Your task to perform on an android device: find snoozed emails in the gmail app Image 0: 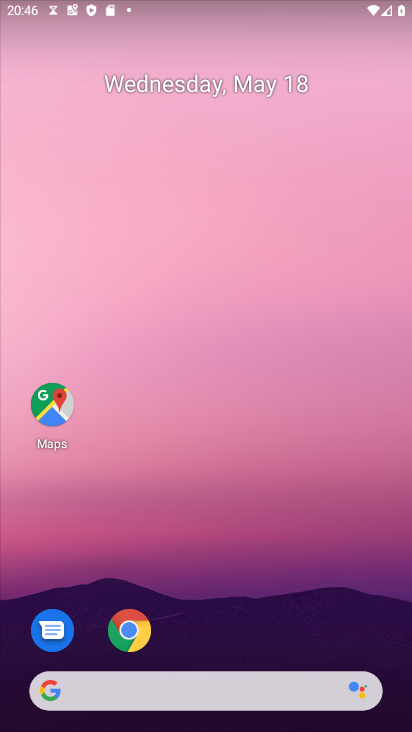
Step 0: press home button
Your task to perform on an android device: find snoozed emails in the gmail app Image 1: 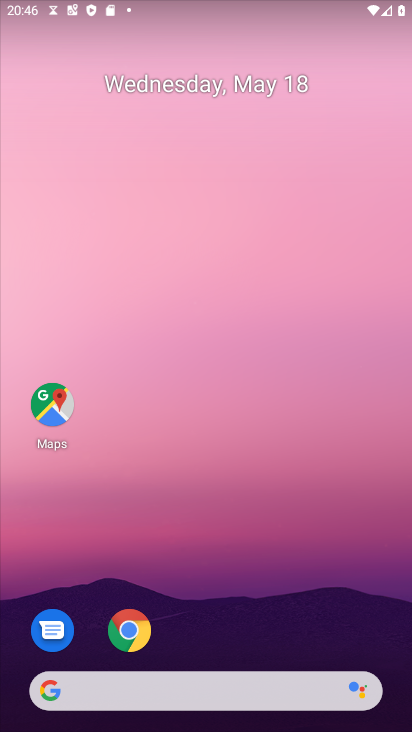
Step 1: drag from (157, 697) to (299, 214)
Your task to perform on an android device: find snoozed emails in the gmail app Image 2: 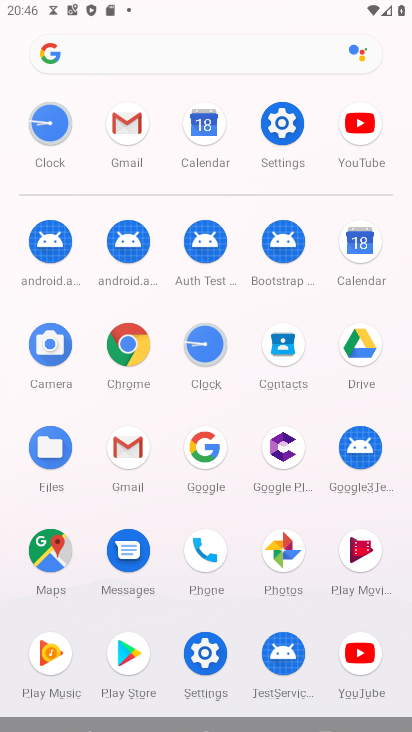
Step 2: click (129, 122)
Your task to perform on an android device: find snoozed emails in the gmail app Image 3: 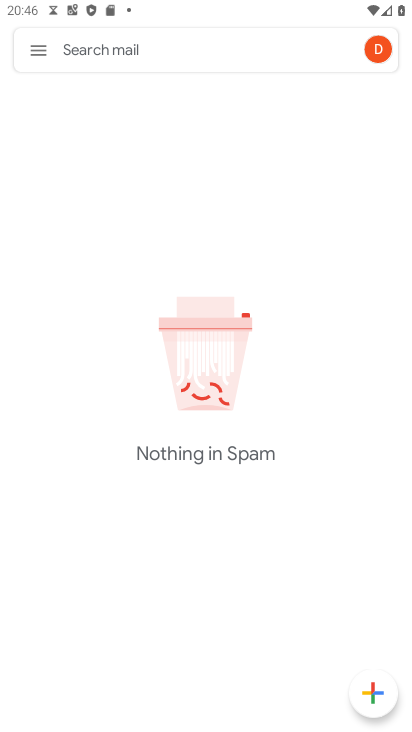
Step 3: click (38, 53)
Your task to perform on an android device: find snoozed emails in the gmail app Image 4: 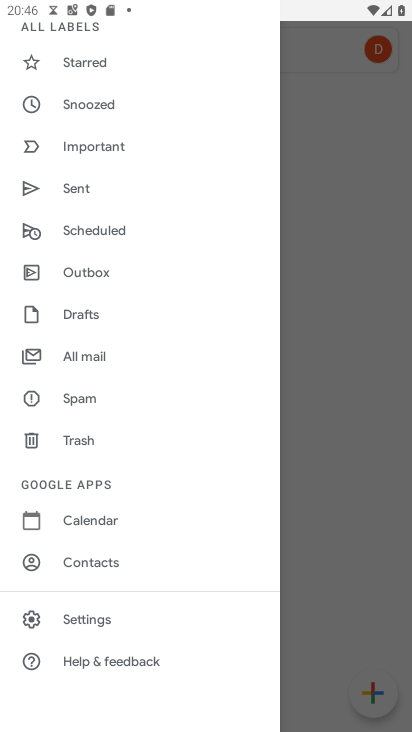
Step 4: click (99, 101)
Your task to perform on an android device: find snoozed emails in the gmail app Image 5: 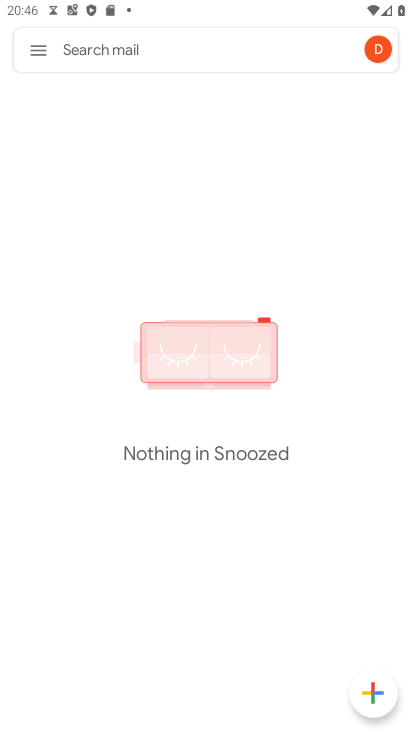
Step 5: task complete